Your task to perform on an android device: turn off airplane mode Image 0: 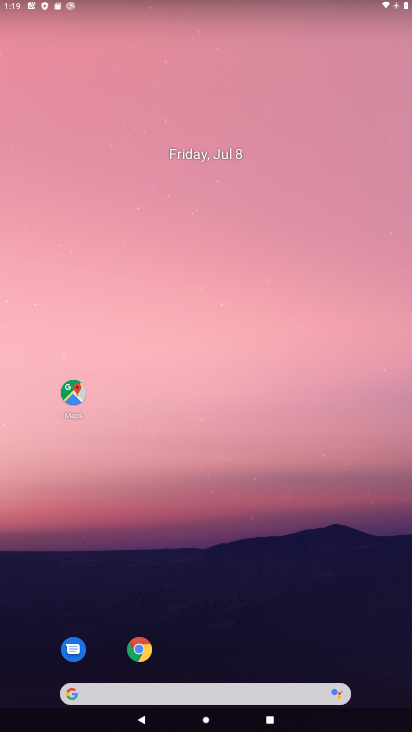
Step 0: drag from (33, 706) to (238, 40)
Your task to perform on an android device: turn off airplane mode Image 1: 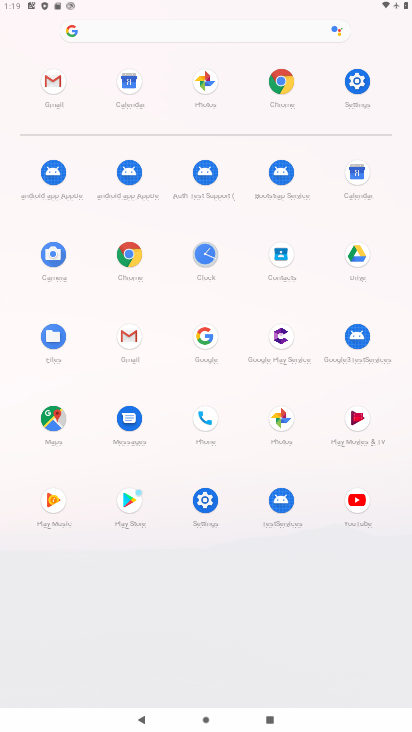
Step 1: click (198, 509)
Your task to perform on an android device: turn off airplane mode Image 2: 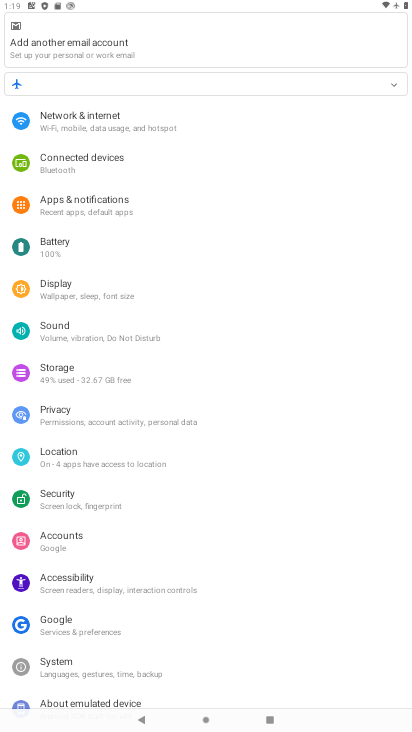
Step 2: click (97, 121)
Your task to perform on an android device: turn off airplane mode Image 3: 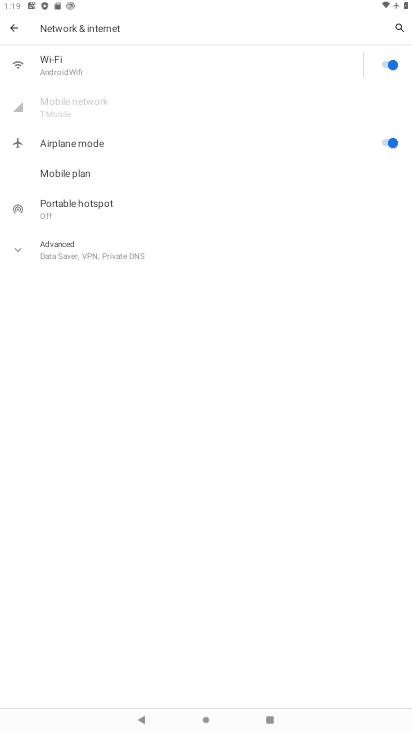
Step 3: click (91, 255)
Your task to perform on an android device: turn off airplane mode Image 4: 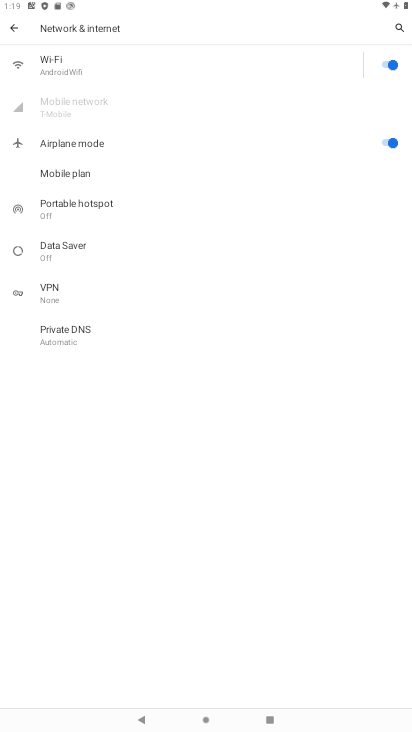
Step 4: click (400, 143)
Your task to perform on an android device: turn off airplane mode Image 5: 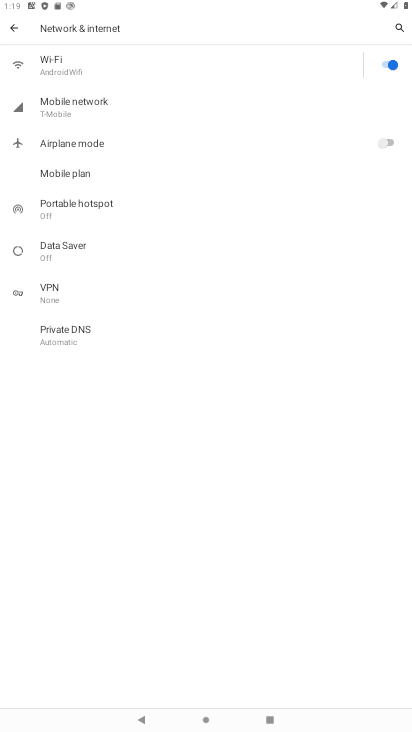
Step 5: task complete